Your task to perform on an android device: uninstall "Google Pay: Save, Pay, Manage" Image 0: 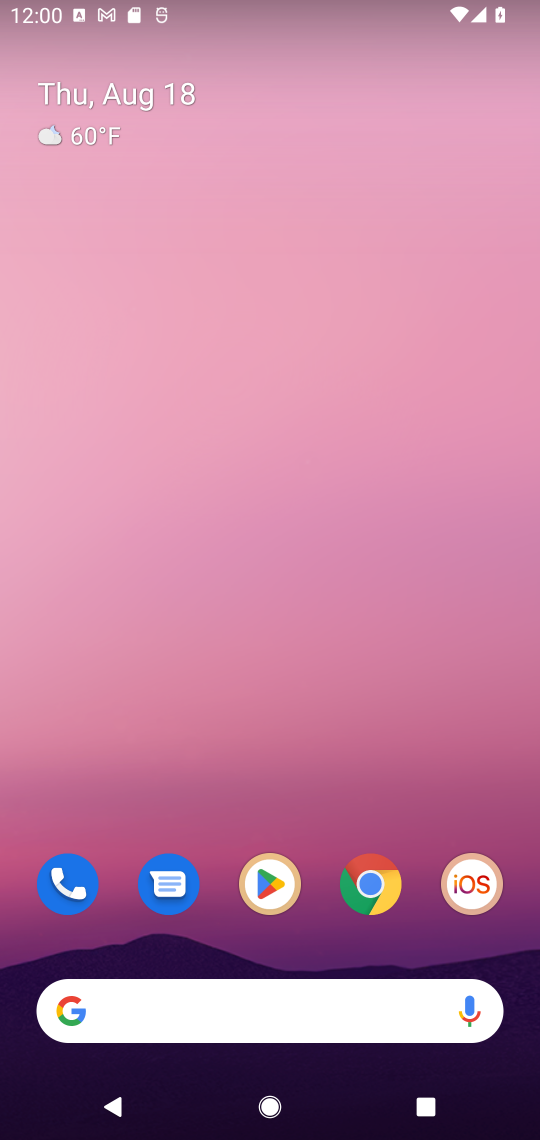
Step 0: drag from (273, 1018) to (327, 372)
Your task to perform on an android device: uninstall "Google Pay: Save, Pay, Manage" Image 1: 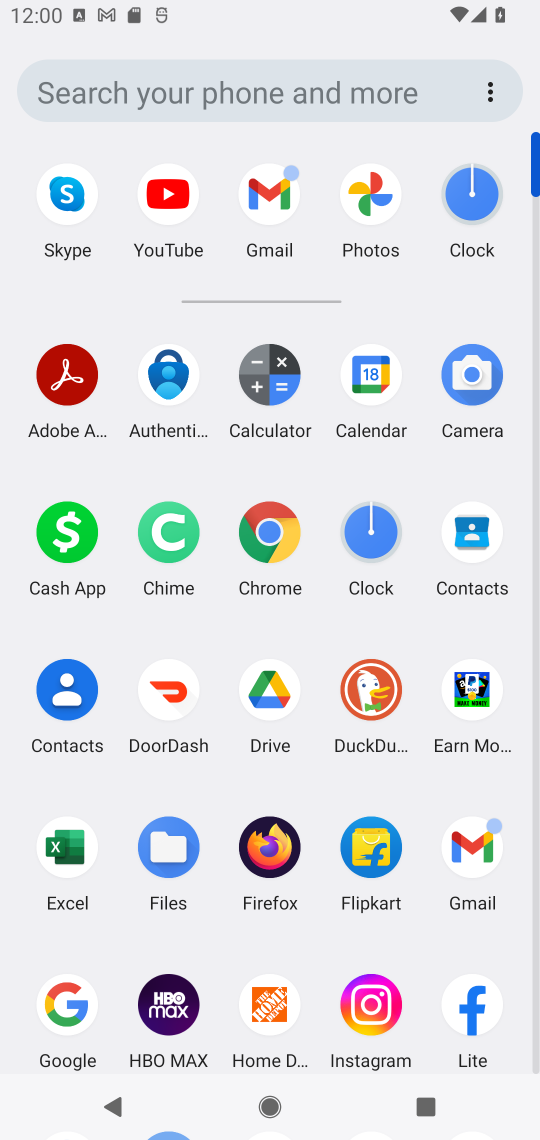
Step 1: drag from (218, 928) to (256, 417)
Your task to perform on an android device: uninstall "Google Pay: Save, Pay, Manage" Image 2: 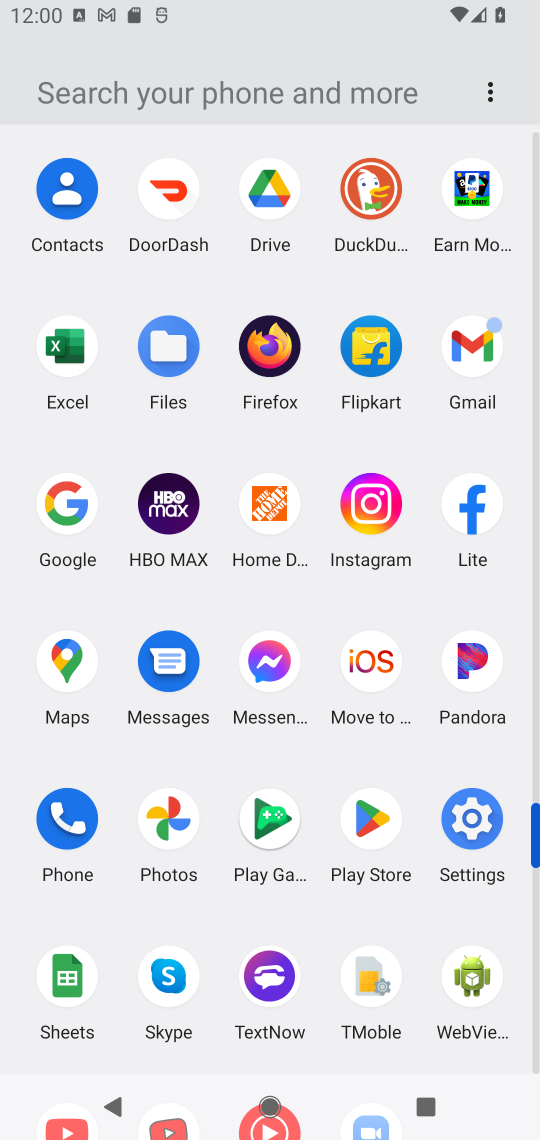
Step 2: click (380, 821)
Your task to perform on an android device: uninstall "Google Pay: Save, Pay, Manage" Image 3: 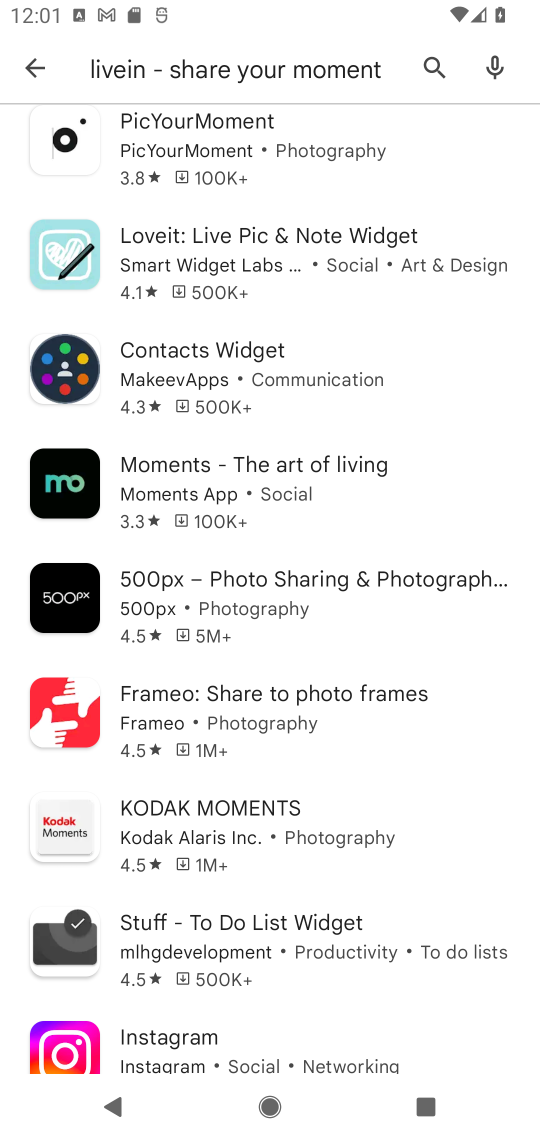
Step 3: press back button
Your task to perform on an android device: uninstall "Google Pay: Save, Pay, Manage" Image 4: 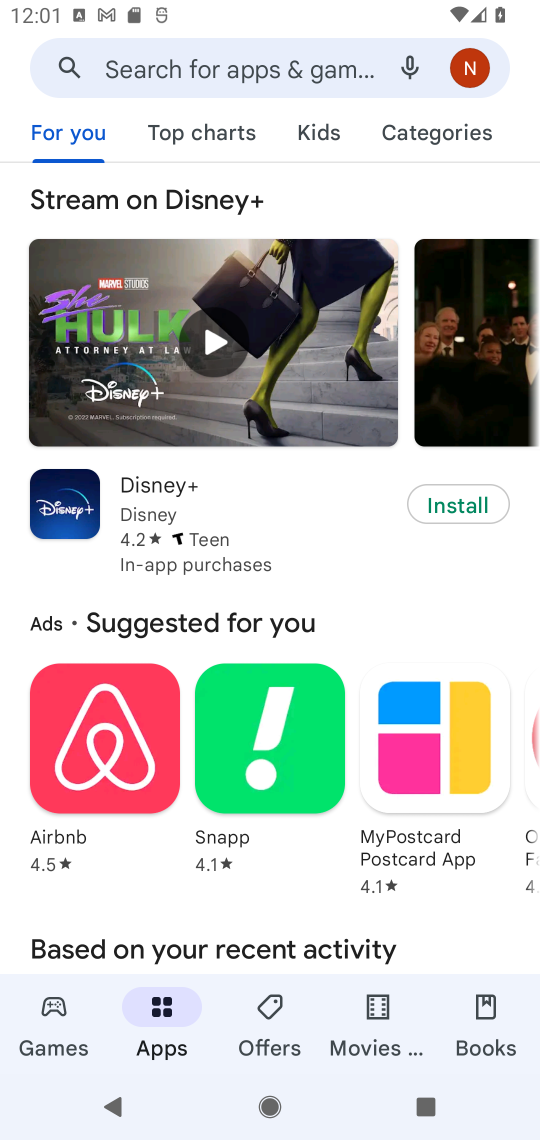
Step 4: click (215, 66)
Your task to perform on an android device: uninstall "Google Pay: Save, Pay, Manage" Image 5: 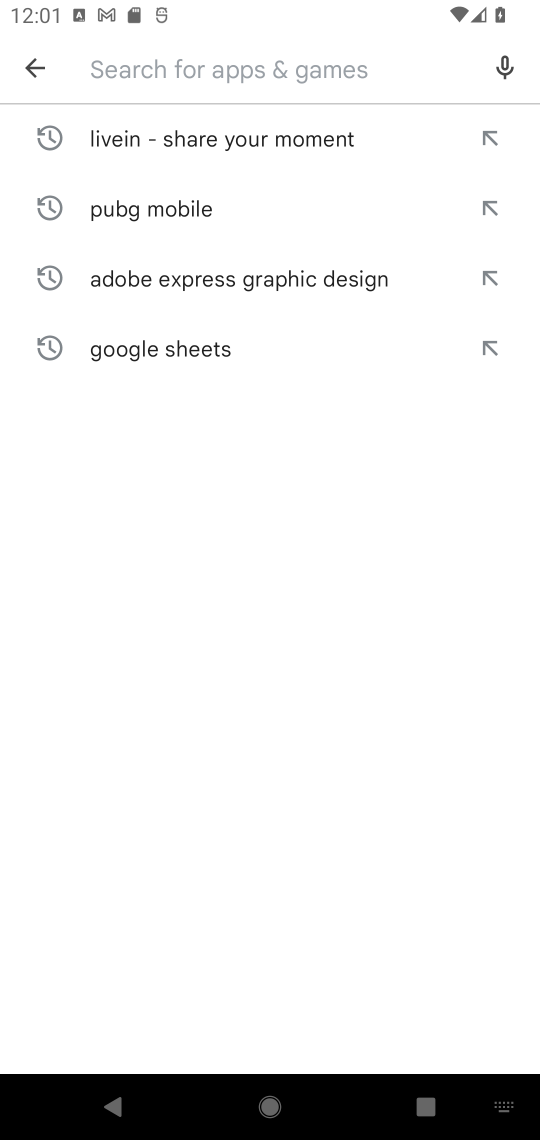
Step 5: type "Google Pay: Save, Pay, Manage"
Your task to perform on an android device: uninstall "Google Pay: Save, Pay, Manage" Image 6: 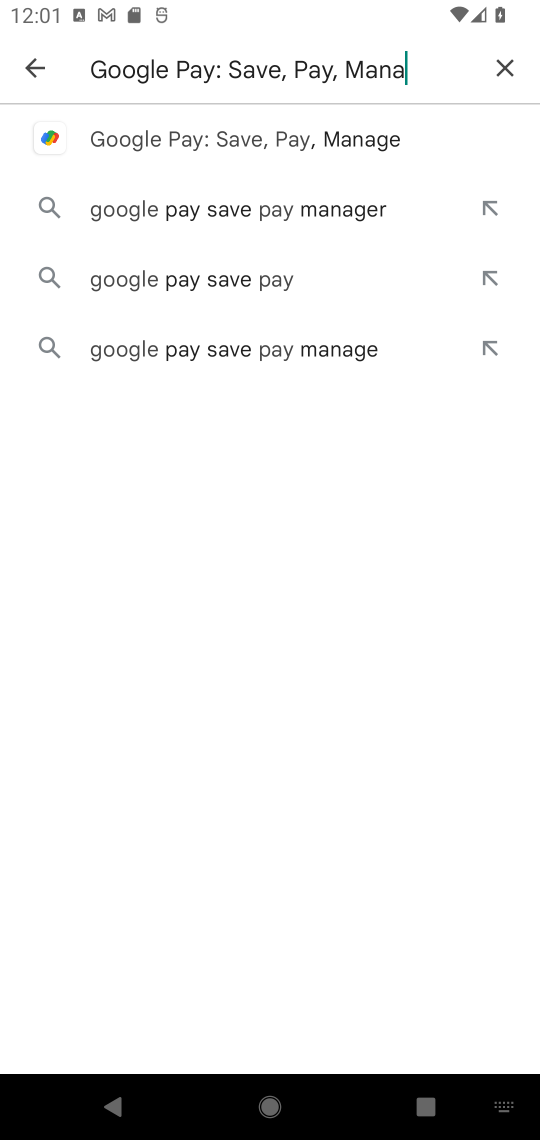
Step 6: type ""
Your task to perform on an android device: uninstall "Google Pay: Save, Pay, Manage" Image 7: 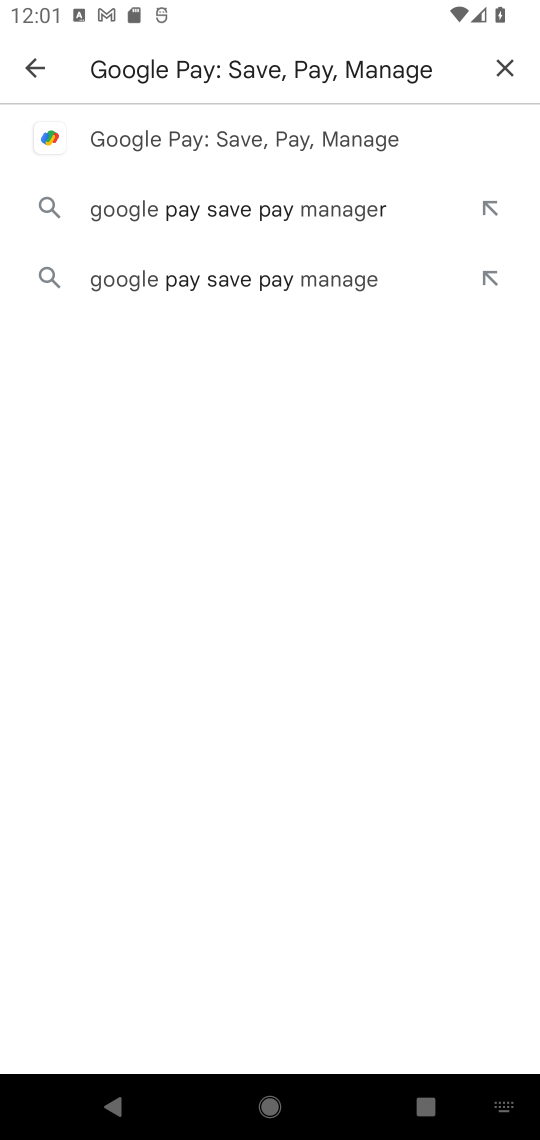
Step 7: click (208, 145)
Your task to perform on an android device: uninstall "Google Pay: Save, Pay, Manage" Image 8: 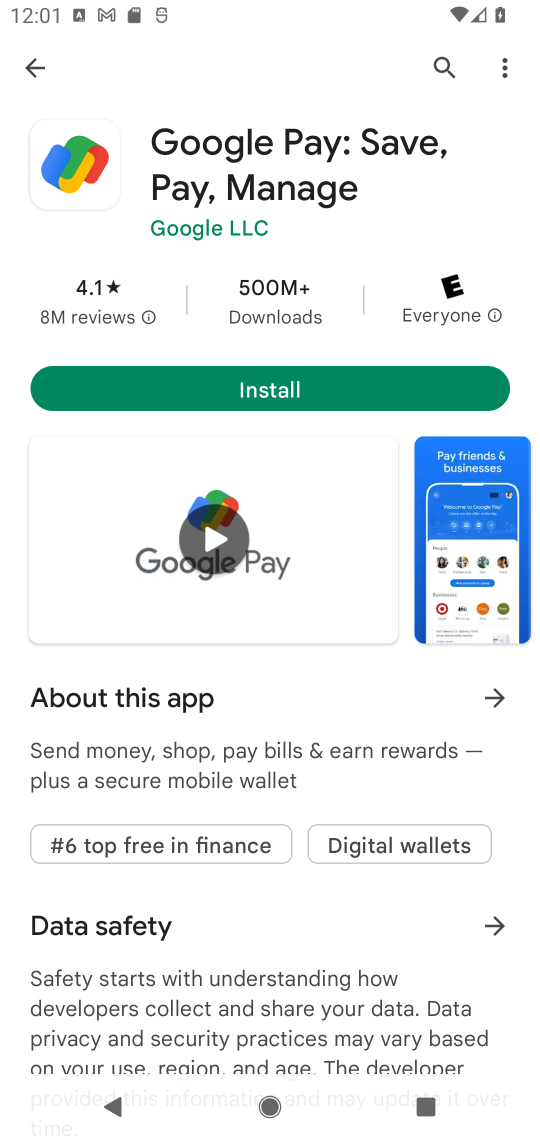
Step 8: task complete